Your task to perform on an android device: Turn off the flashlight Image 0: 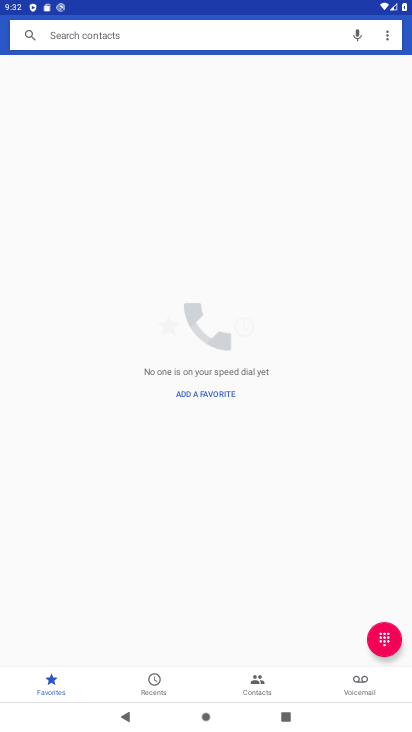
Step 0: press home button
Your task to perform on an android device: Turn off the flashlight Image 1: 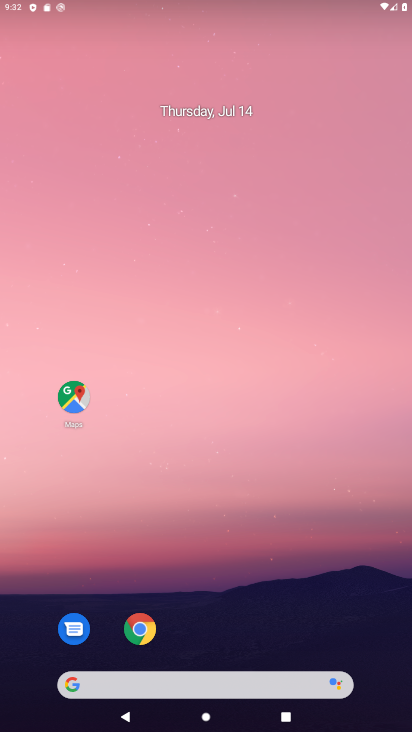
Step 1: drag from (209, 650) to (236, 191)
Your task to perform on an android device: Turn off the flashlight Image 2: 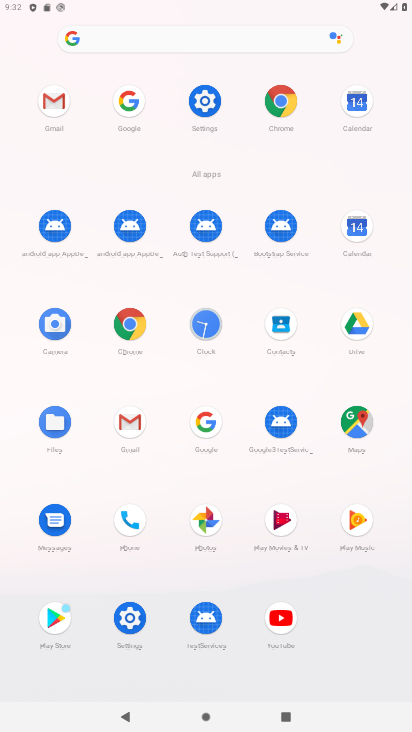
Step 2: click (207, 100)
Your task to perform on an android device: Turn off the flashlight Image 3: 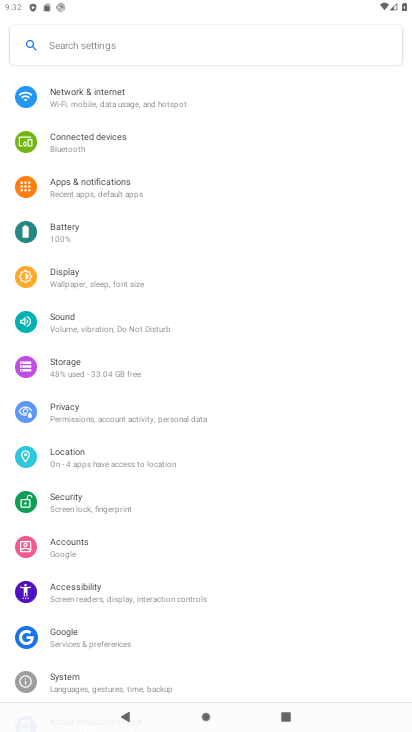
Step 3: click (158, 55)
Your task to perform on an android device: Turn off the flashlight Image 4: 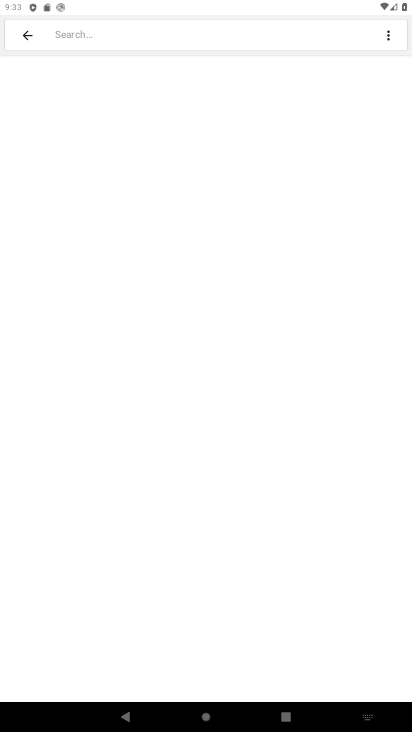
Step 4: type "flashlight"
Your task to perform on an android device: Turn off the flashlight Image 5: 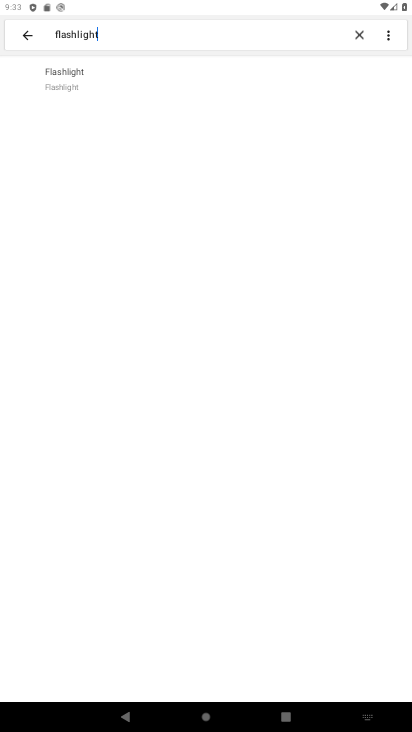
Step 5: task complete